Your task to perform on an android device: add a label to a message in the gmail app Image 0: 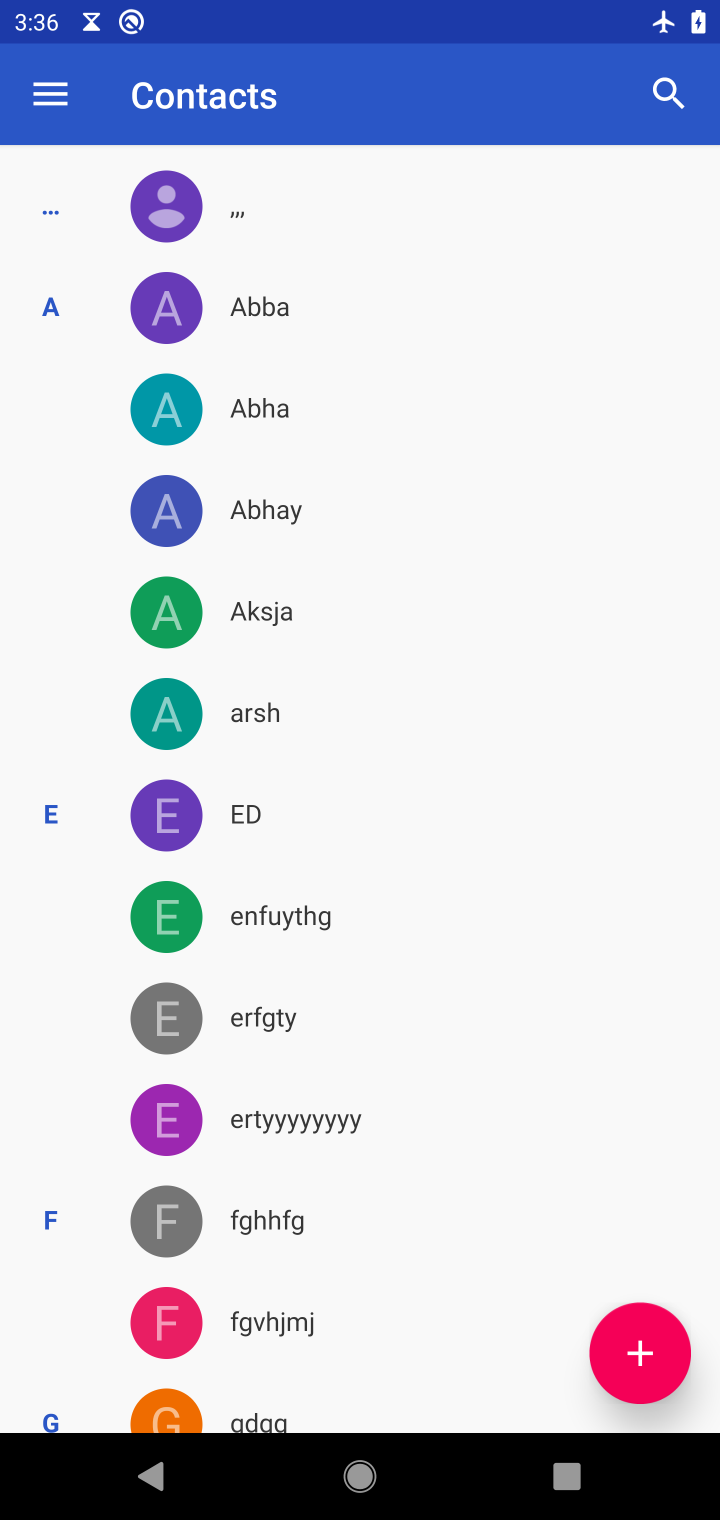
Step 0: press home button
Your task to perform on an android device: add a label to a message in the gmail app Image 1: 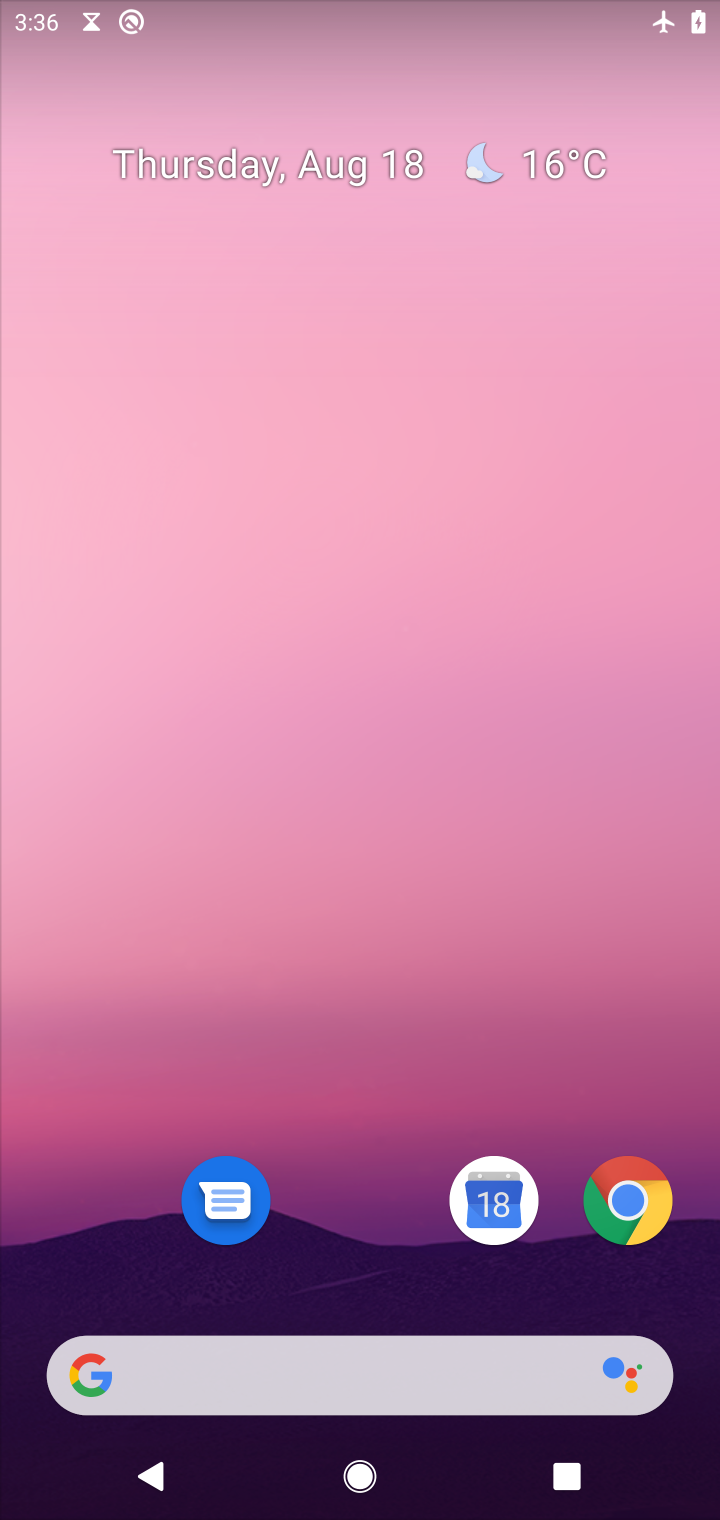
Step 1: drag from (258, 1023) to (459, 41)
Your task to perform on an android device: add a label to a message in the gmail app Image 2: 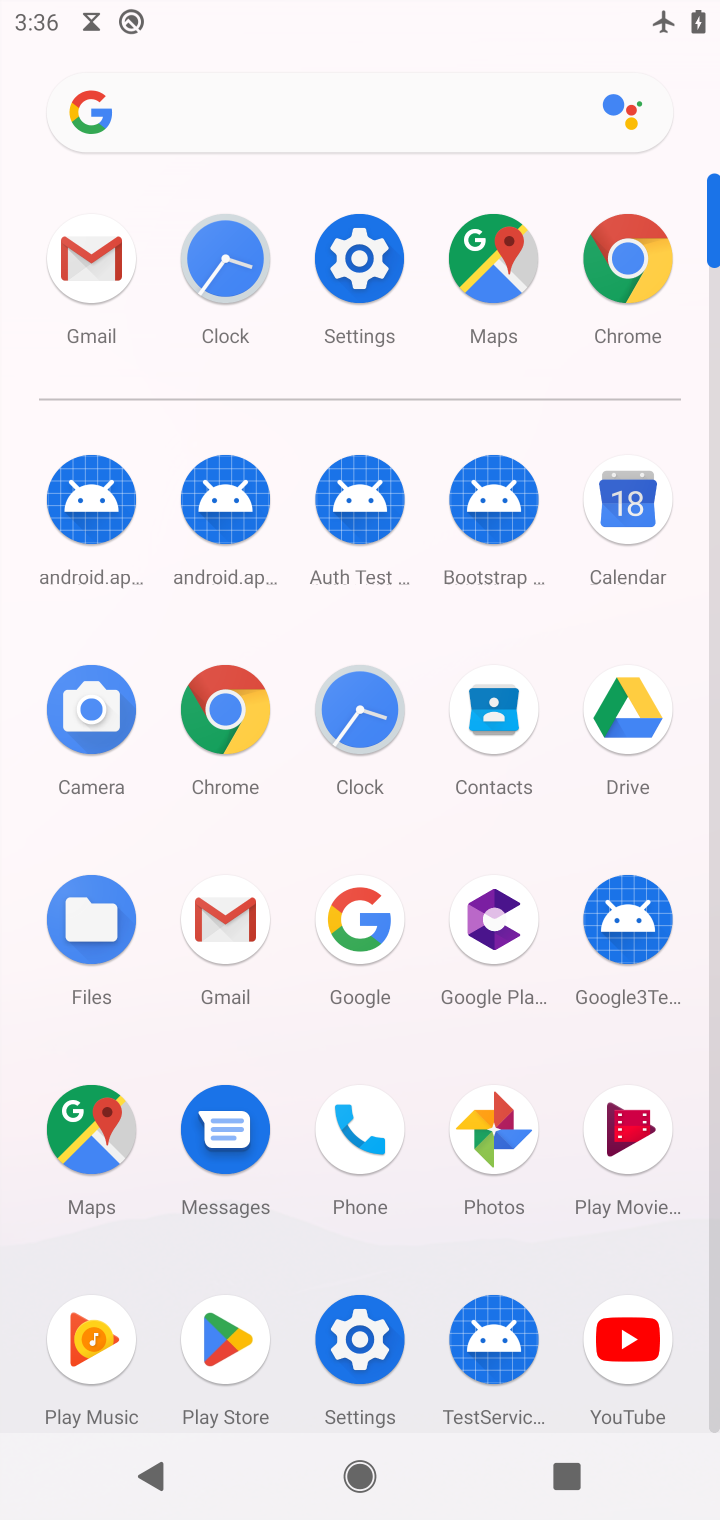
Step 2: click (202, 928)
Your task to perform on an android device: add a label to a message in the gmail app Image 3: 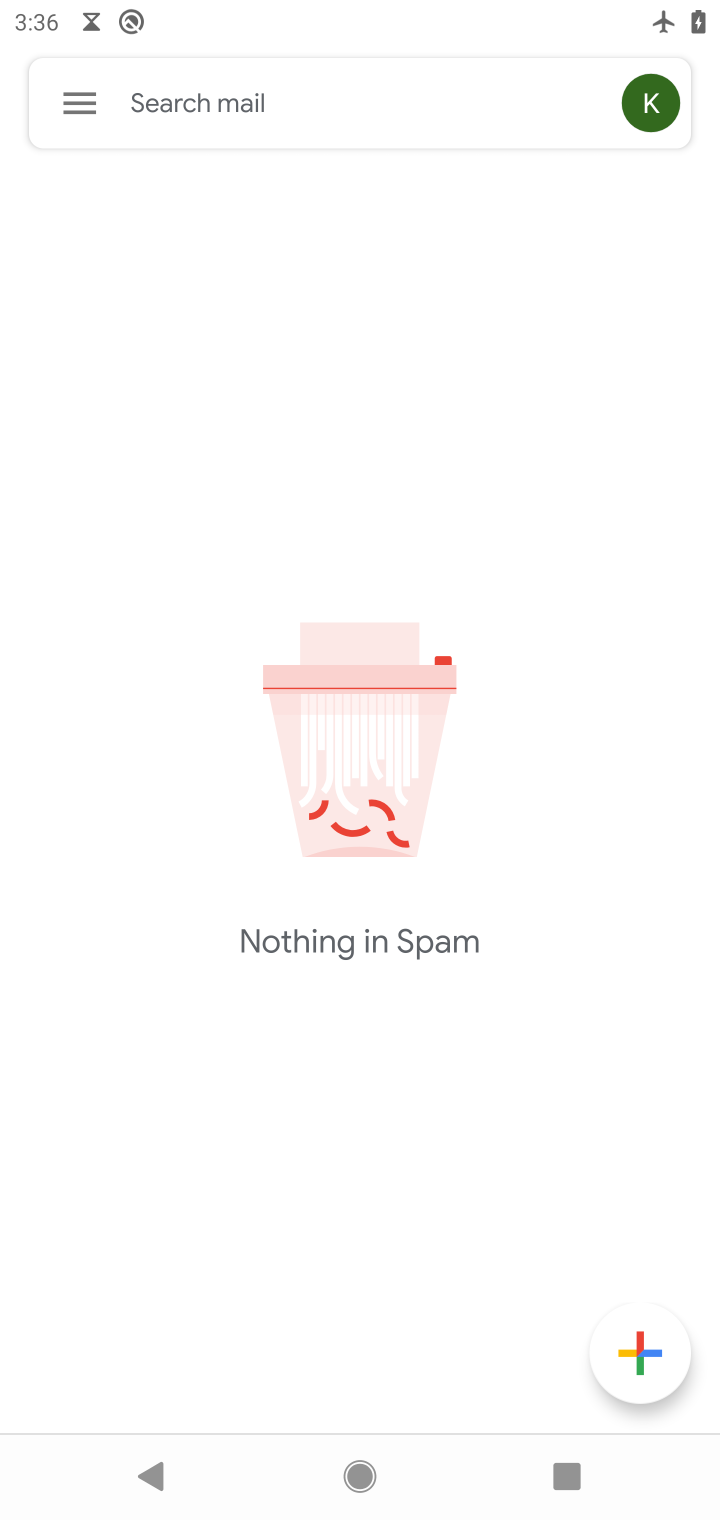
Step 3: click (94, 82)
Your task to perform on an android device: add a label to a message in the gmail app Image 4: 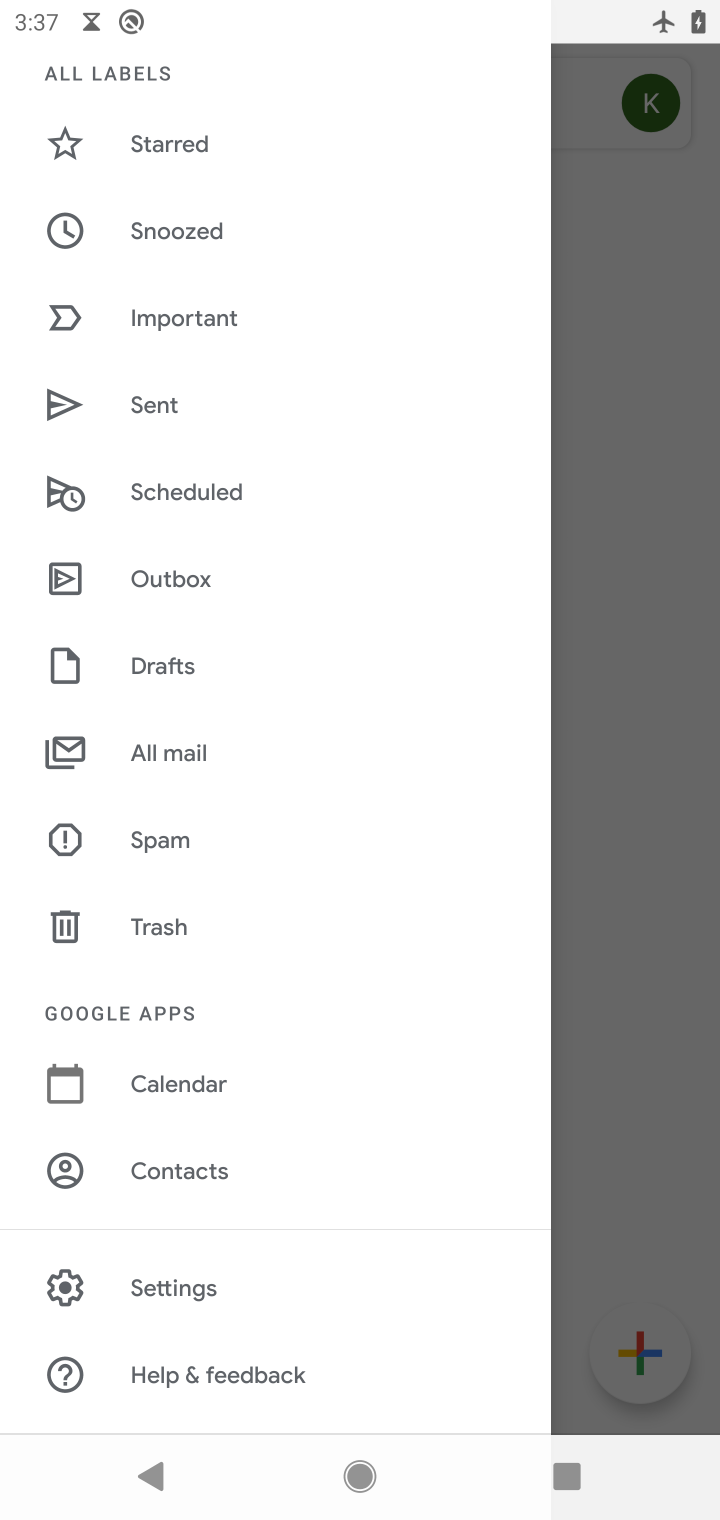
Step 4: drag from (271, 354) to (508, 923)
Your task to perform on an android device: add a label to a message in the gmail app Image 5: 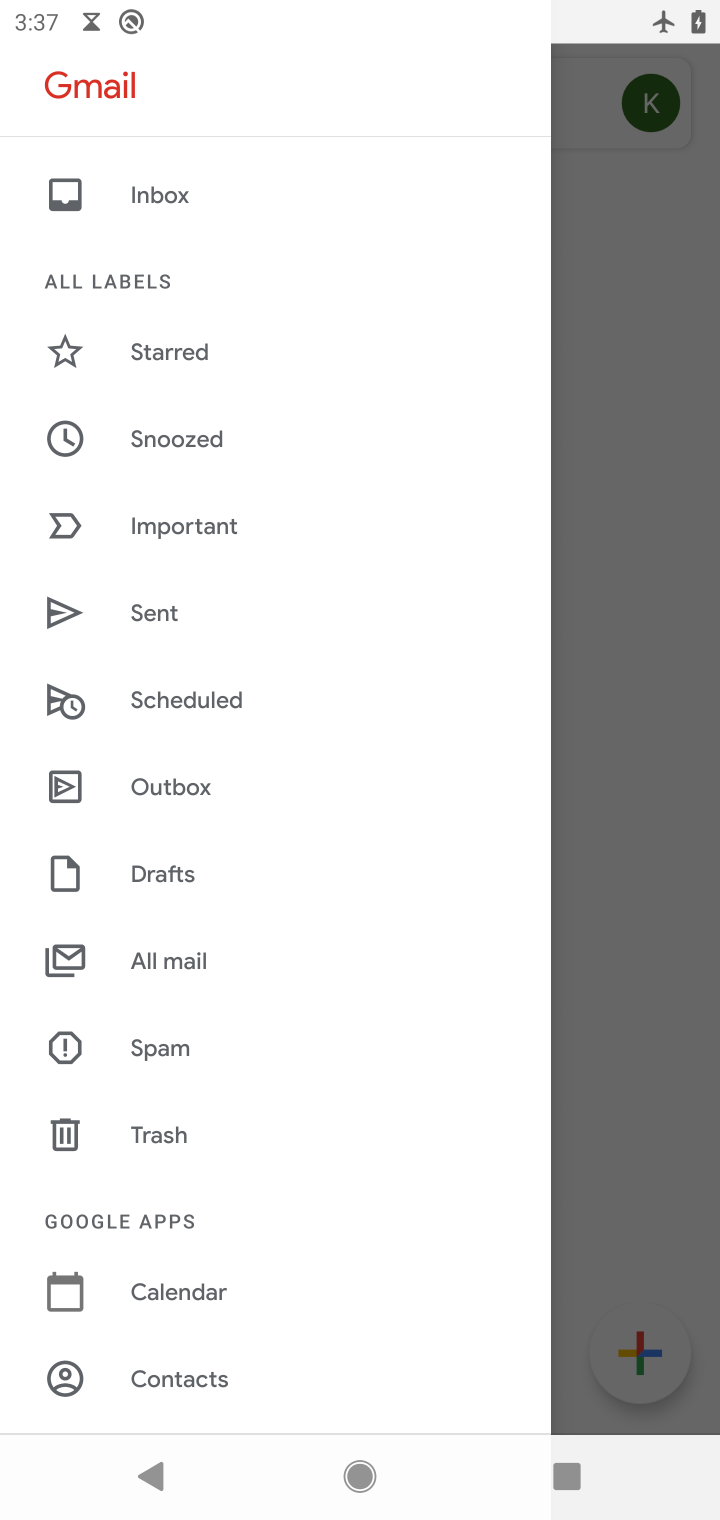
Step 5: drag from (251, 330) to (259, 1459)
Your task to perform on an android device: add a label to a message in the gmail app Image 6: 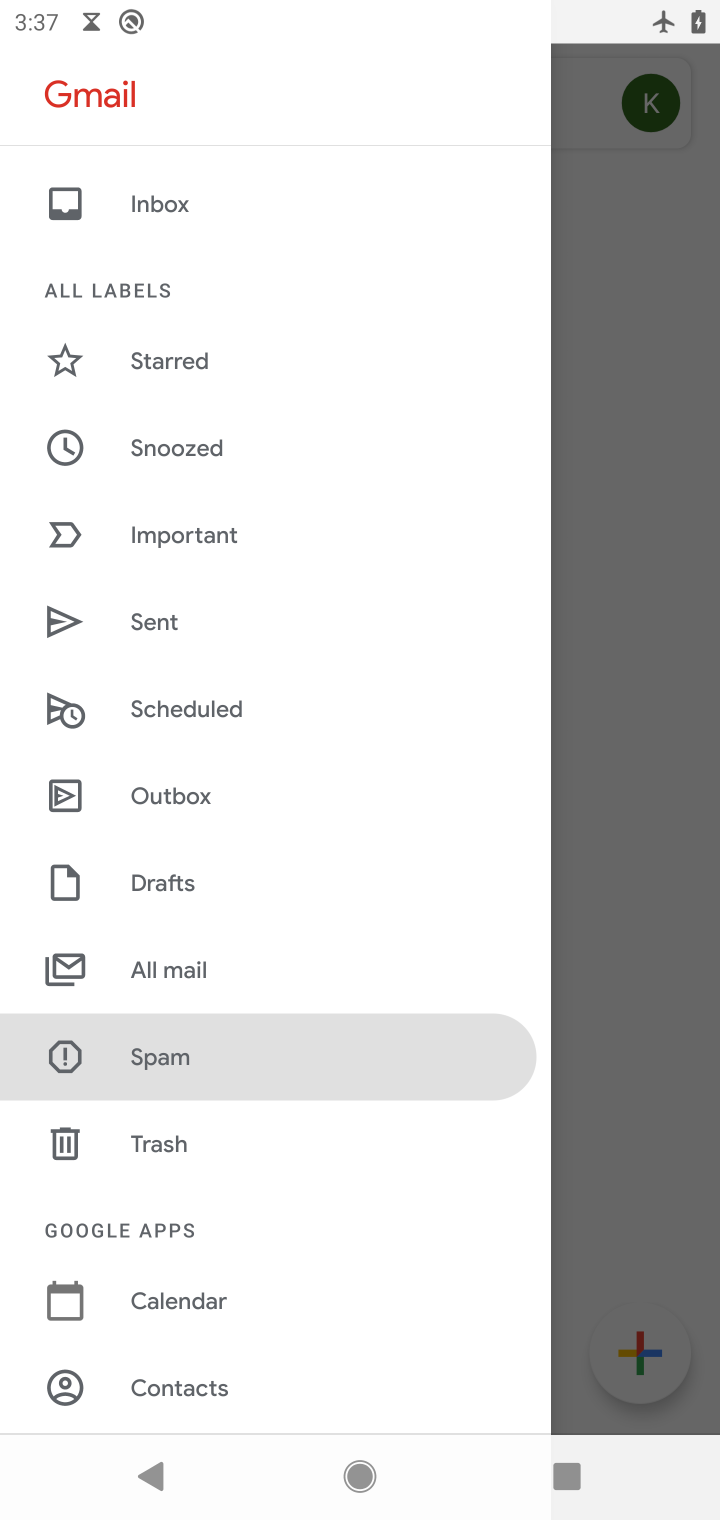
Step 6: click (158, 206)
Your task to perform on an android device: add a label to a message in the gmail app Image 7: 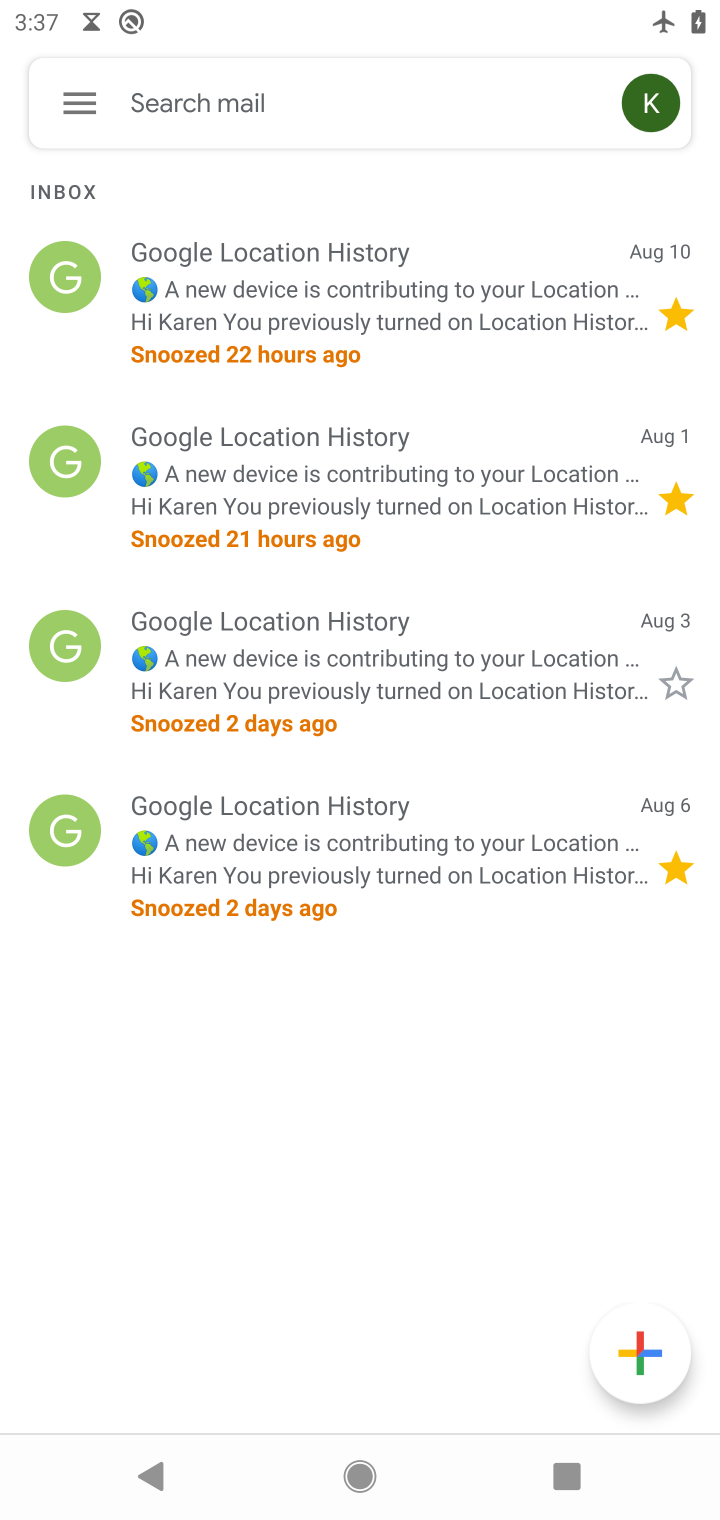
Step 7: click (99, 288)
Your task to perform on an android device: add a label to a message in the gmail app Image 8: 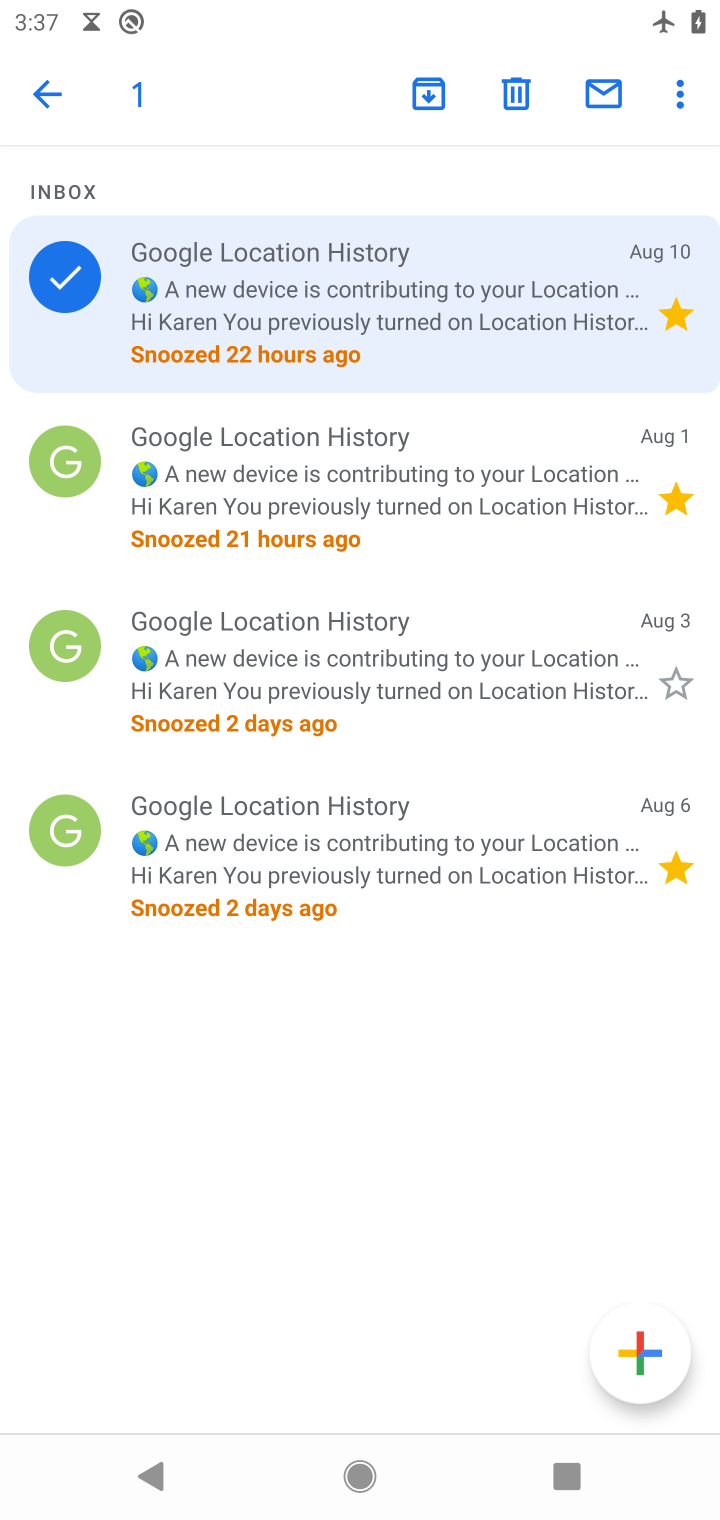
Step 8: click (674, 81)
Your task to perform on an android device: add a label to a message in the gmail app Image 9: 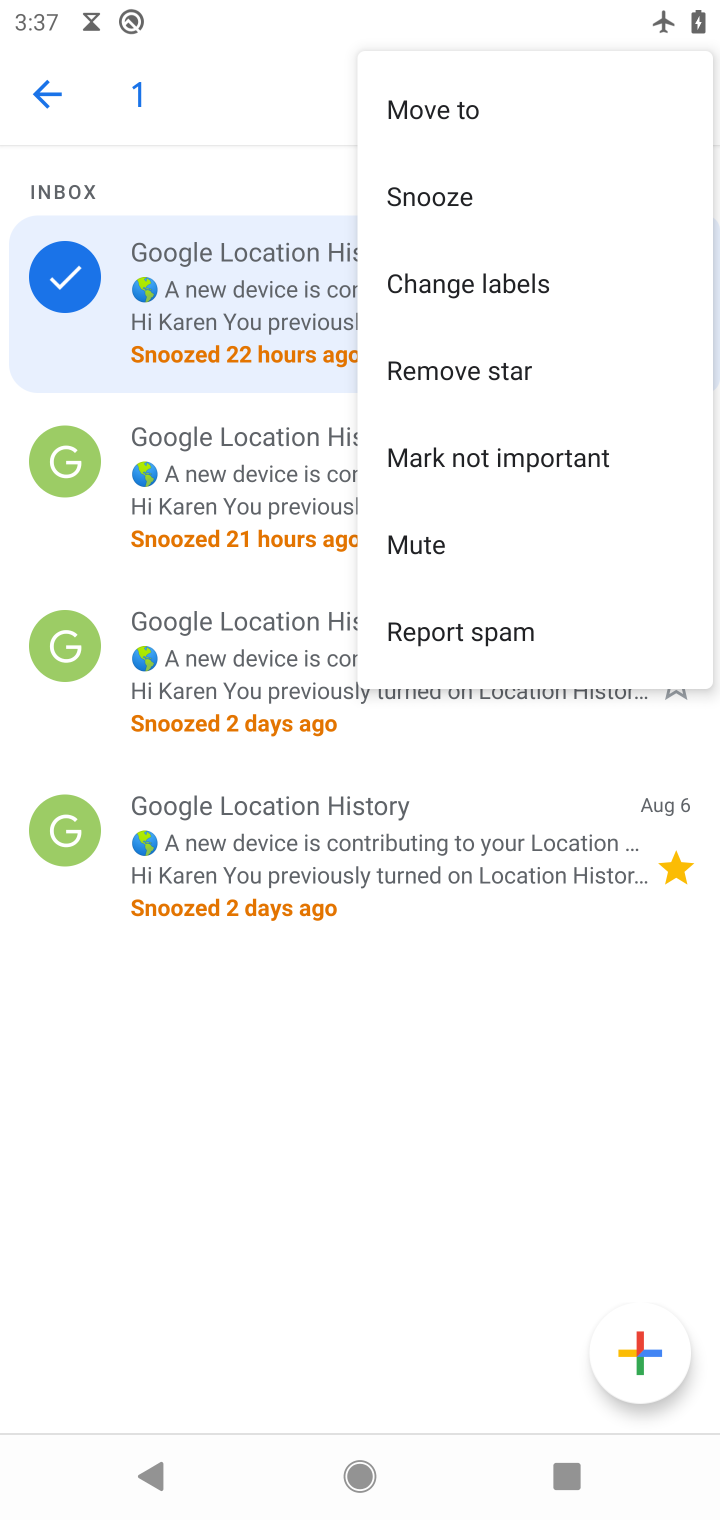
Step 9: task complete